Your task to perform on an android device: Open the calendar app, open the side menu, and click the "Day" option Image 0: 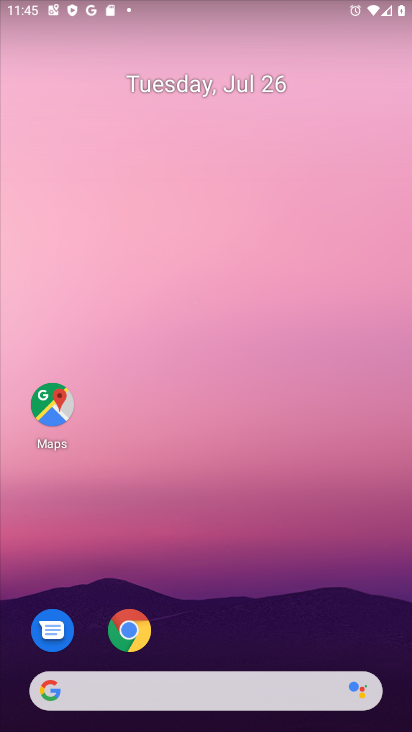
Step 0: drag from (84, 698) to (296, 19)
Your task to perform on an android device: Open the calendar app, open the side menu, and click the "Day" option Image 1: 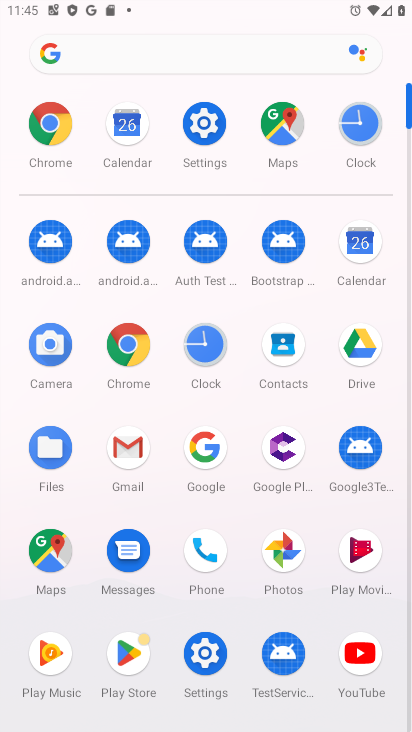
Step 1: click (353, 258)
Your task to perform on an android device: Open the calendar app, open the side menu, and click the "Day" option Image 2: 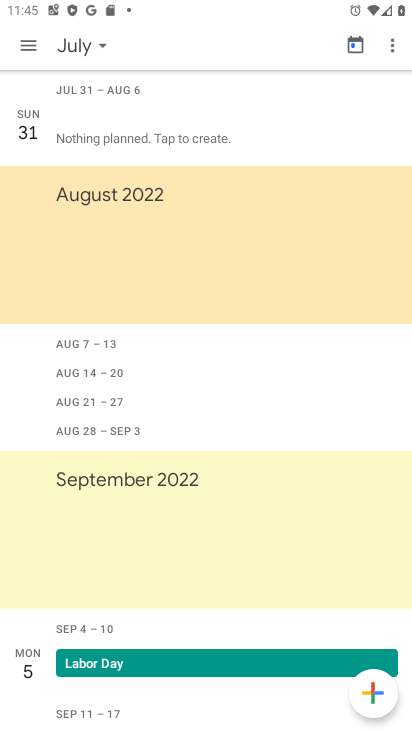
Step 2: click (37, 45)
Your task to perform on an android device: Open the calendar app, open the side menu, and click the "Day" option Image 3: 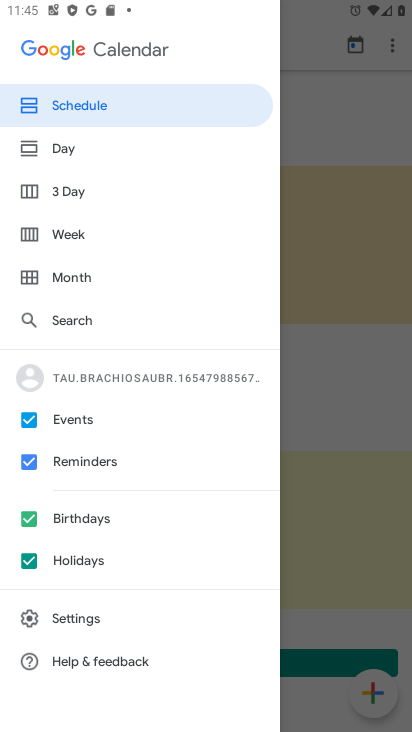
Step 3: click (66, 150)
Your task to perform on an android device: Open the calendar app, open the side menu, and click the "Day" option Image 4: 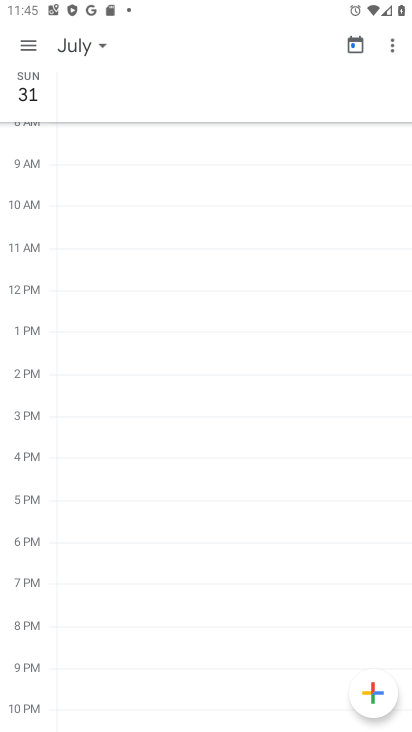
Step 4: task complete